Your task to perform on an android device: Go to sound settings Image 0: 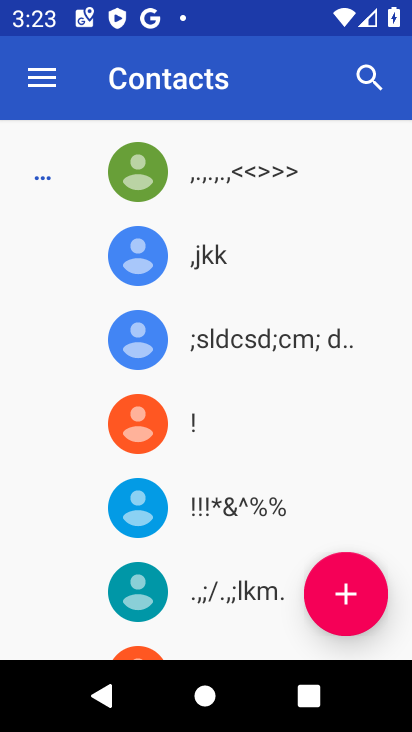
Step 0: drag from (389, 643) to (409, 350)
Your task to perform on an android device: Go to sound settings Image 1: 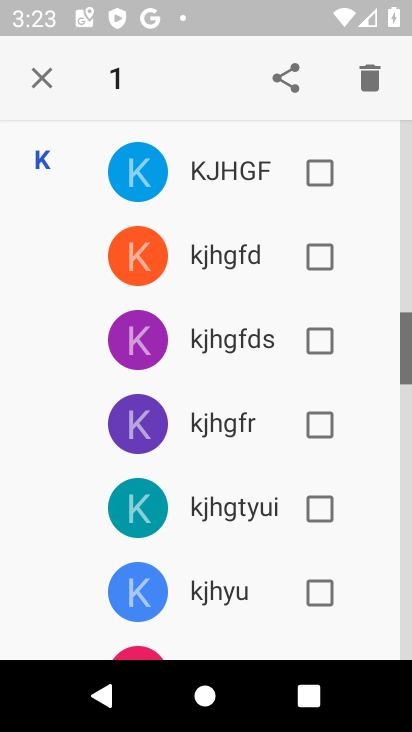
Step 1: press home button
Your task to perform on an android device: Go to sound settings Image 2: 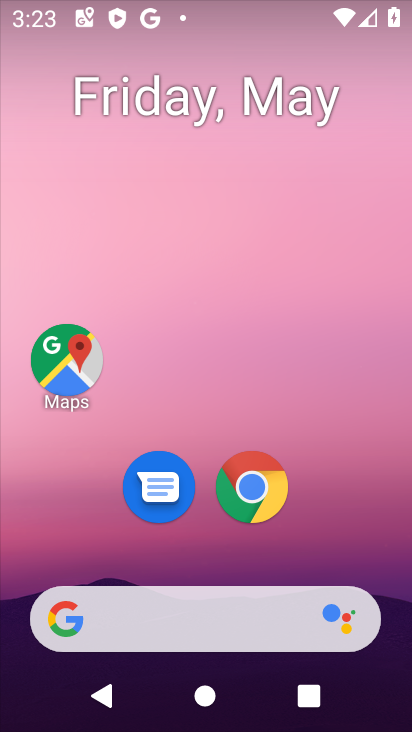
Step 2: drag from (410, 403) to (379, 30)
Your task to perform on an android device: Go to sound settings Image 3: 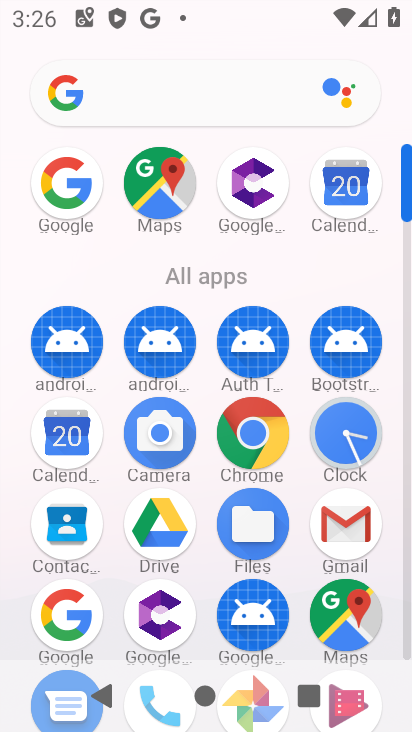
Step 3: drag from (217, 636) to (348, 163)
Your task to perform on an android device: Go to sound settings Image 4: 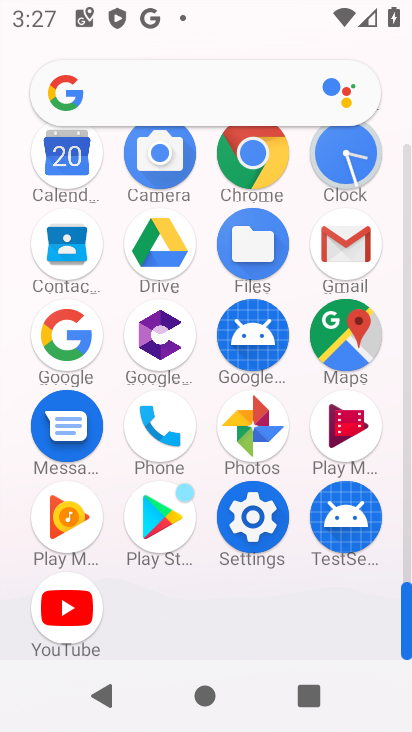
Step 4: click (247, 542)
Your task to perform on an android device: Go to sound settings Image 5: 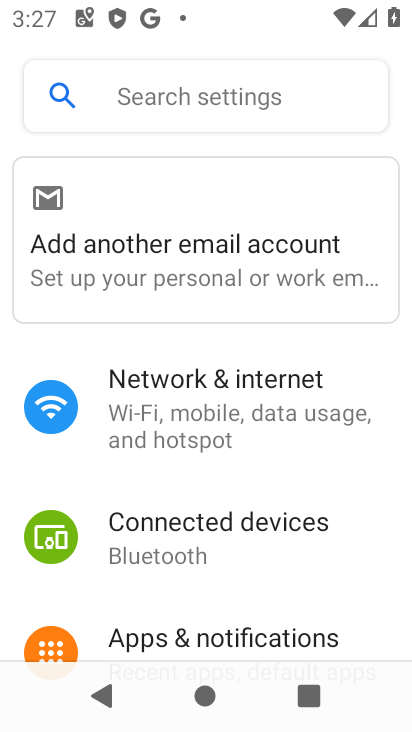
Step 5: drag from (218, 566) to (316, 0)
Your task to perform on an android device: Go to sound settings Image 6: 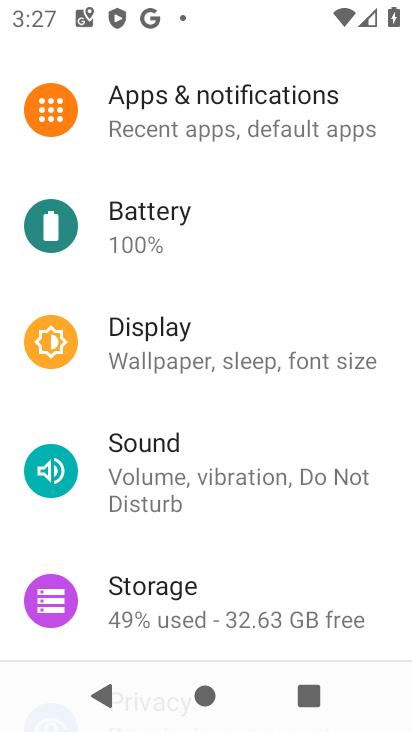
Step 6: click (162, 464)
Your task to perform on an android device: Go to sound settings Image 7: 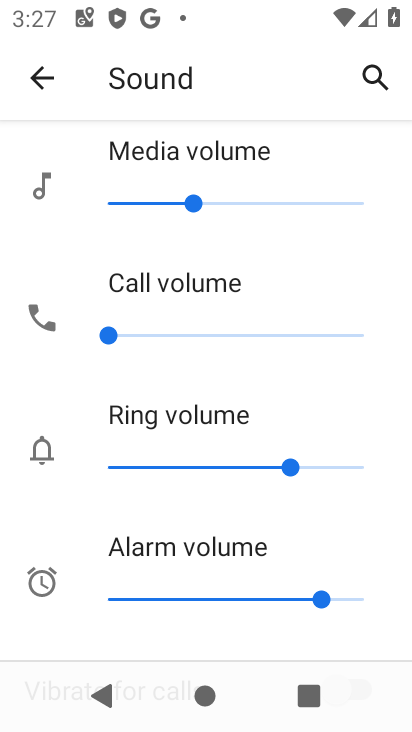
Step 7: task complete